Your task to perform on an android device: Open the map Image 0: 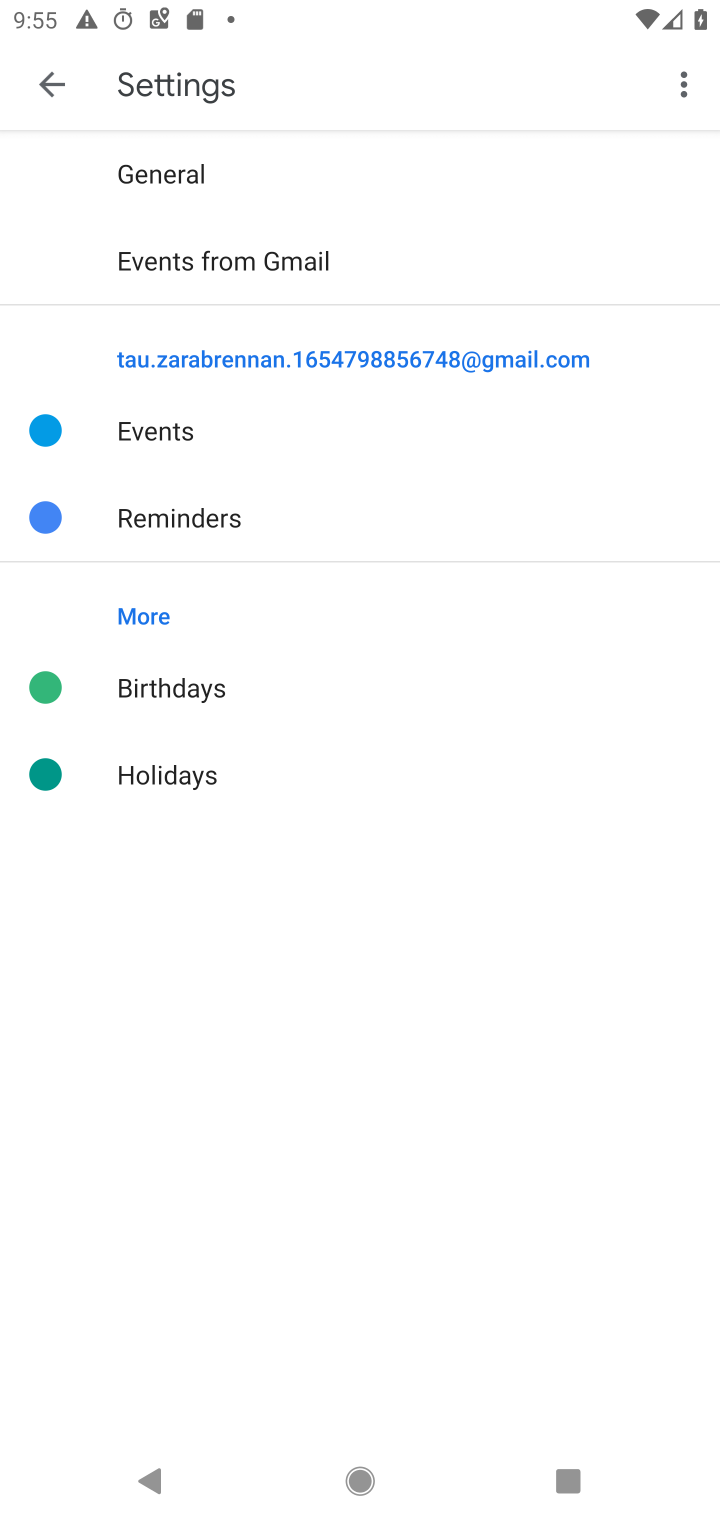
Step 0: press home button
Your task to perform on an android device: Open the map Image 1: 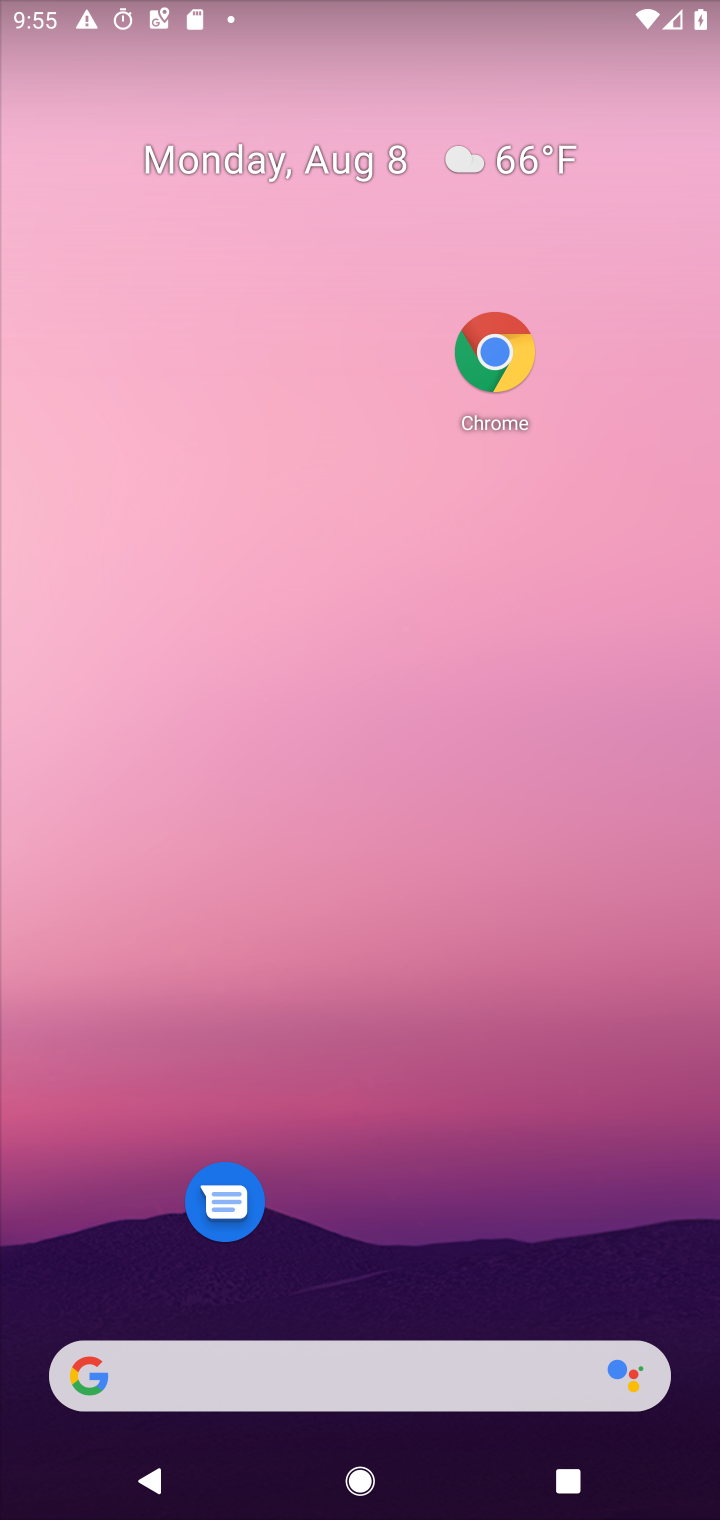
Step 1: drag from (430, 1424) to (706, 55)
Your task to perform on an android device: Open the map Image 2: 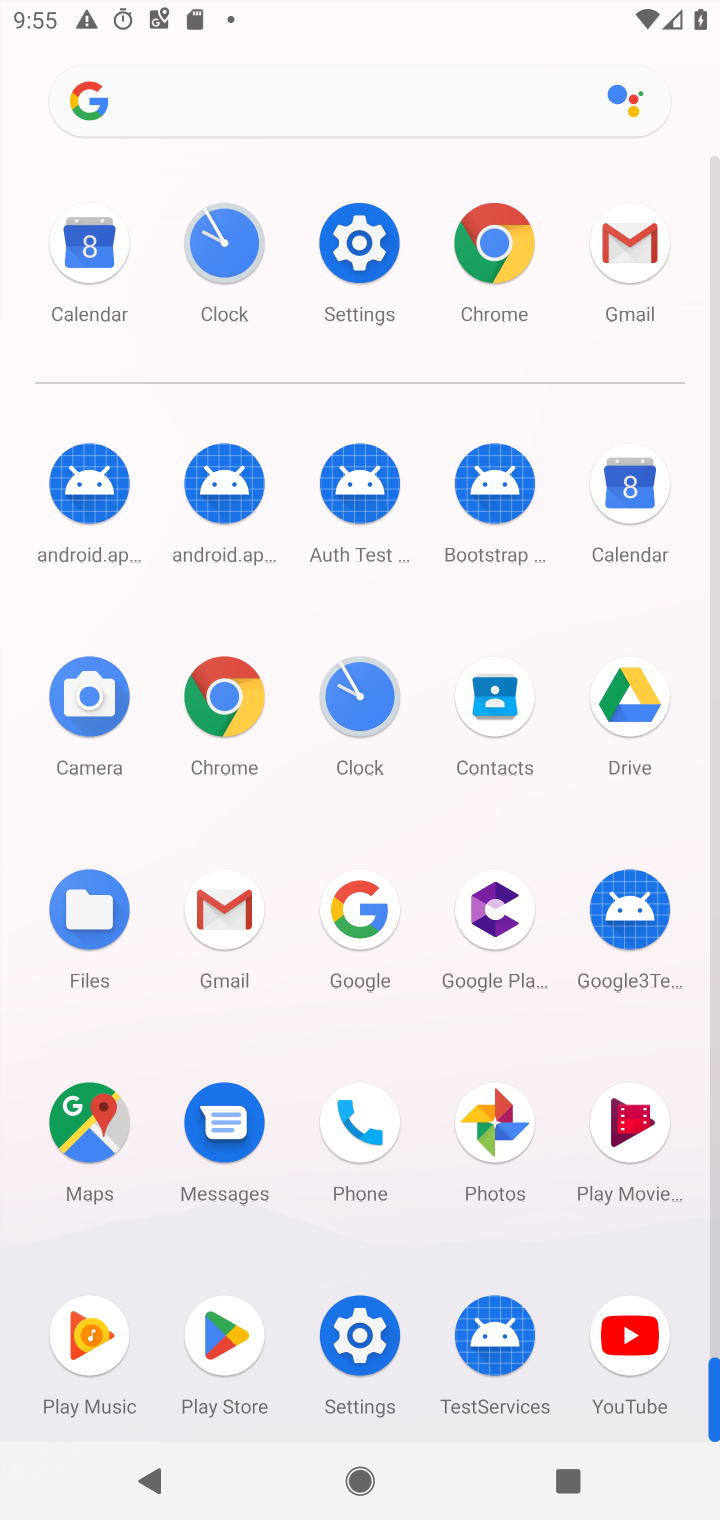
Step 2: click (77, 1154)
Your task to perform on an android device: Open the map Image 3: 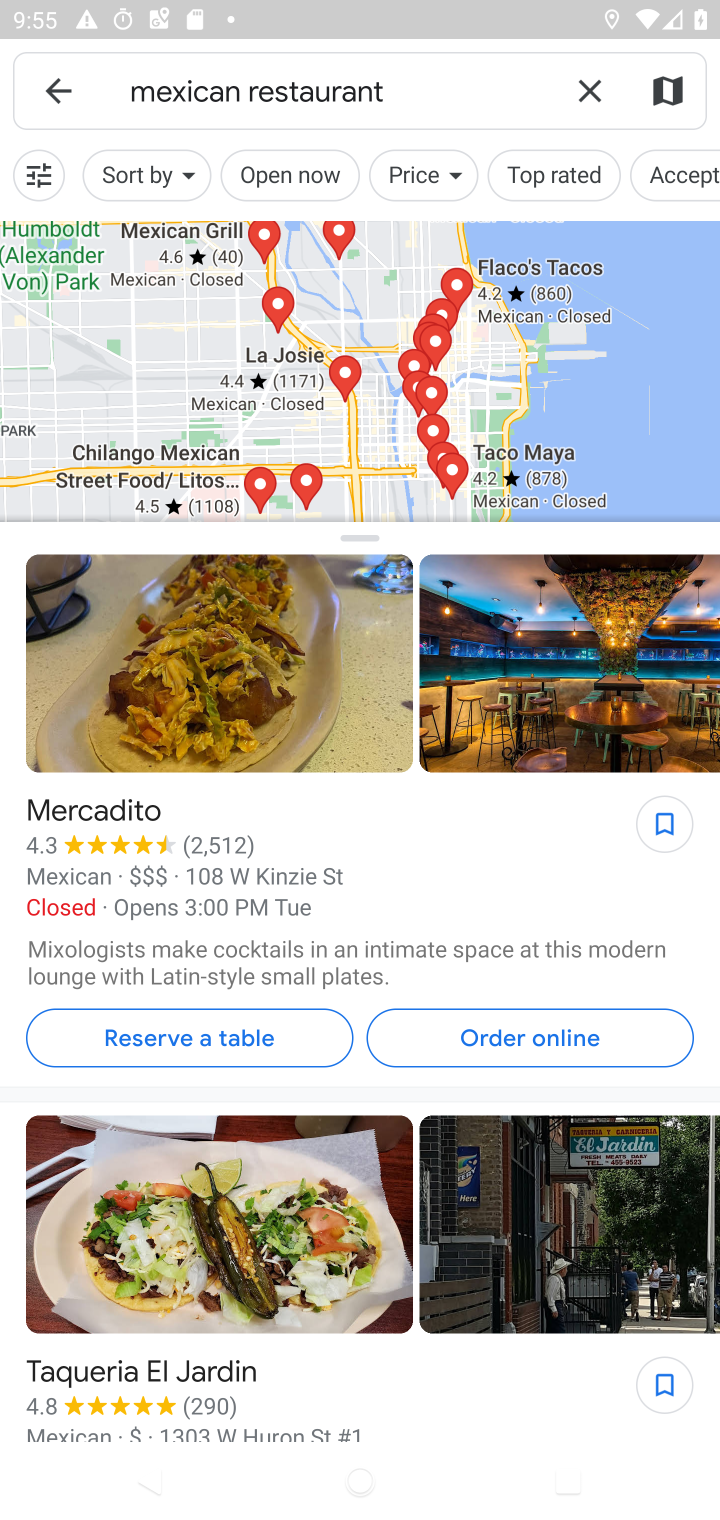
Step 3: task complete